Your task to perform on an android device: Open the map Image 0: 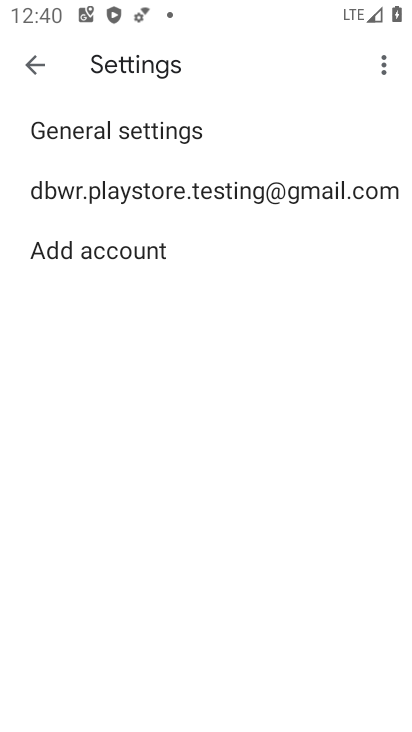
Step 0: press back button
Your task to perform on an android device: Open the map Image 1: 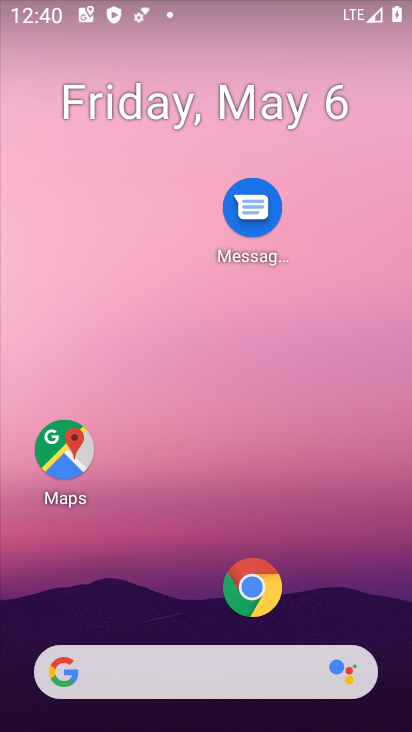
Step 1: click (89, 447)
Your task to perform on an android device: Open the map Image 2: 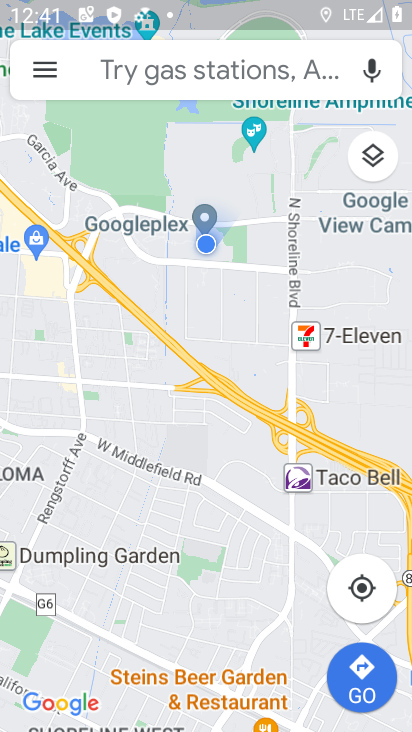
Step 2: task complete